Your task to perform on an android device: open device folders in google photos Image 0: 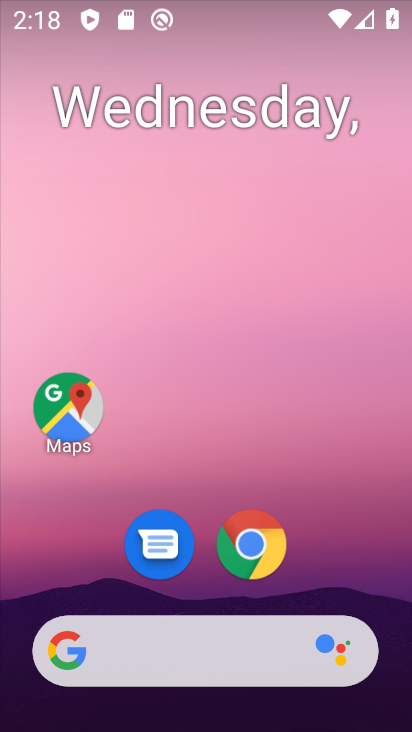
Step 0: drag from (352, 568) to (371, 83)
Your task to perform on an android device: open device folders in google photos Image 1: 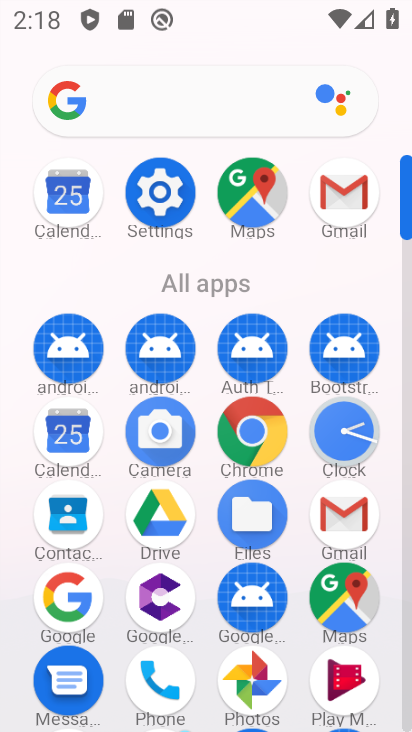
Step 1: drag from (389, 645) to (383, 256)
Your task to perform on an android device: open device folders in google photos Image 2: 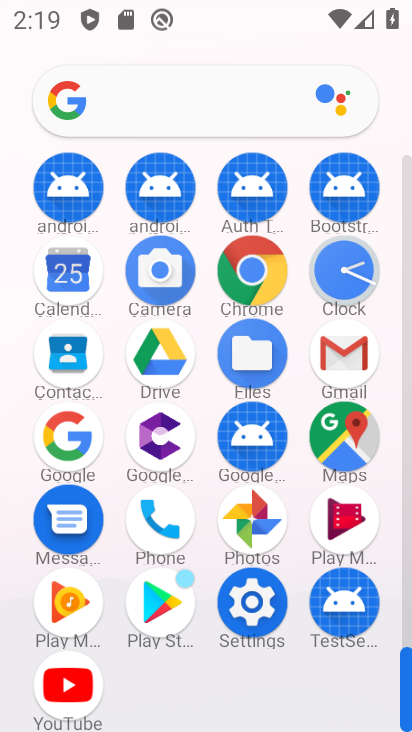
Step 2: click (248, 527)
Your task to perform on an android device: open device folders in google photos Image 3: 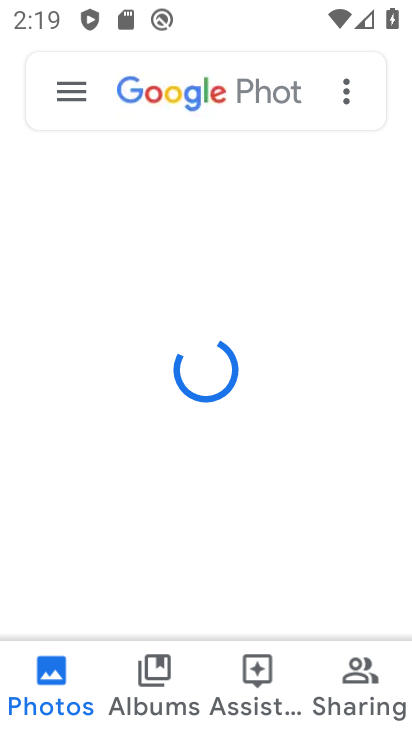
Step 3: click (78, 87)
Your task to perform on an android device: open device folders in google photos Image 4: 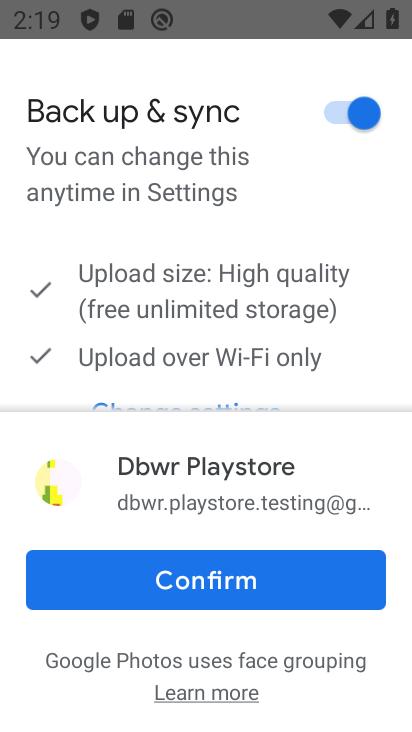
Step 4: click (260, 585)
Your task to perform on an android device: open device folders in google photos Image 5: 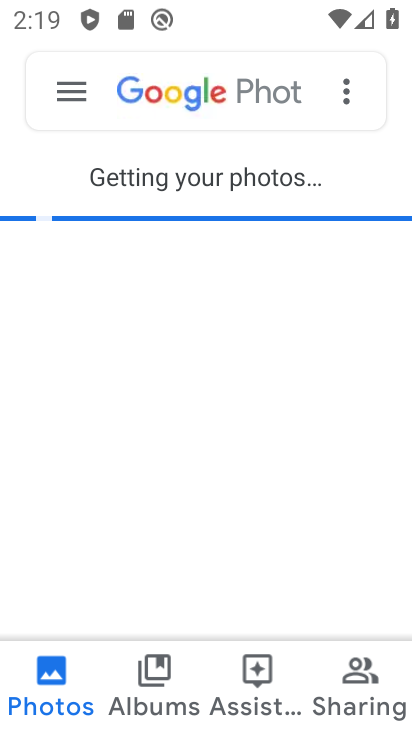
Step 5: click (82, 115)
Your task to perform on an android device: open device folders in google photos Image 6: 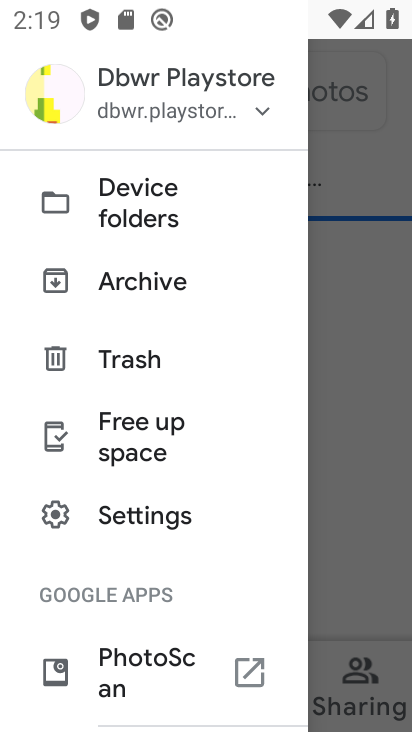
Step 6: click (151, 224)
Your task to perform on an android device: open device folders in google photos Image 7: 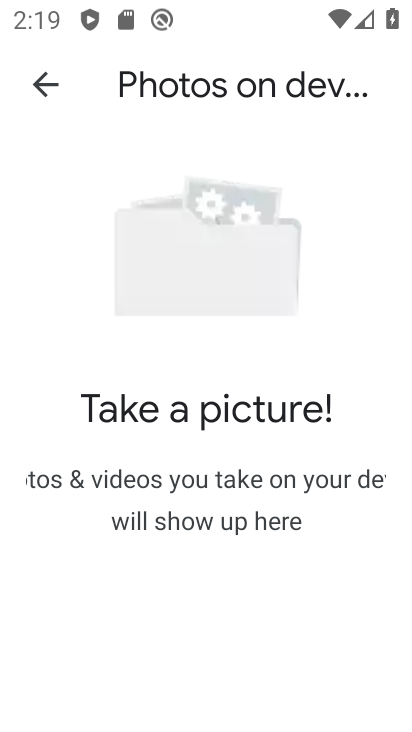
Step 7: task complete